Your task to perform on an android device: Search for Mexican restaurants on Maps Image 0: 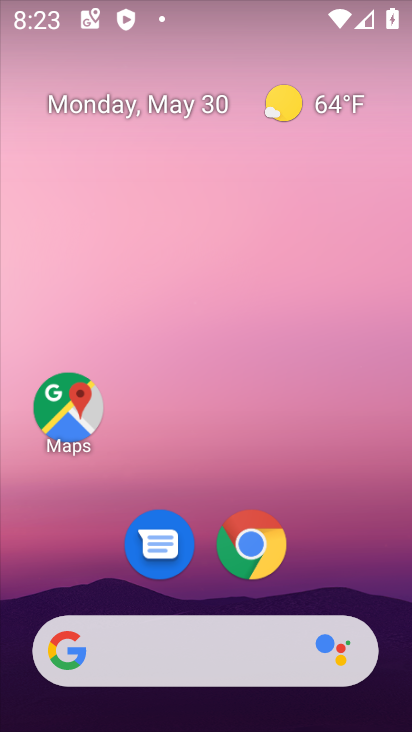
Step 0: click (61, 399)
Your task to perform on an android device: Search for Mexican restaurants on Maps Image 1: 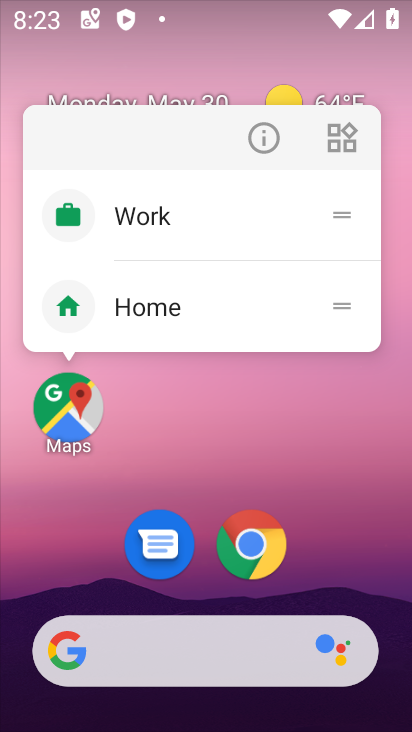
Step 1: click (70, 418)
Your task to perform on an android device: Search for Mexican restaurants on Maps Image 2: 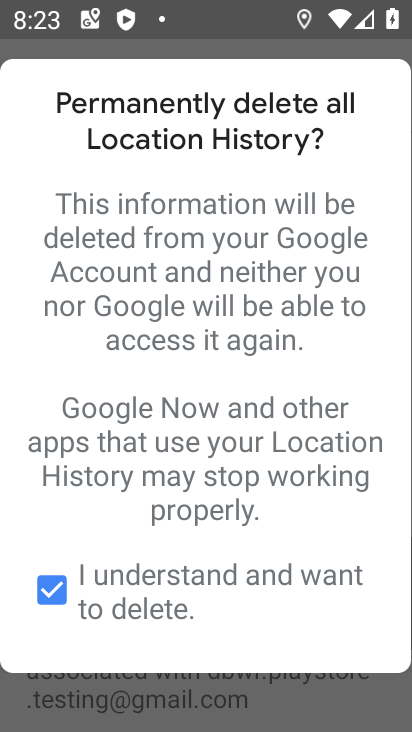
Step 2: press back button
Your task to perform on an android device: Search for Mexican restaurants on Maps Image 3: 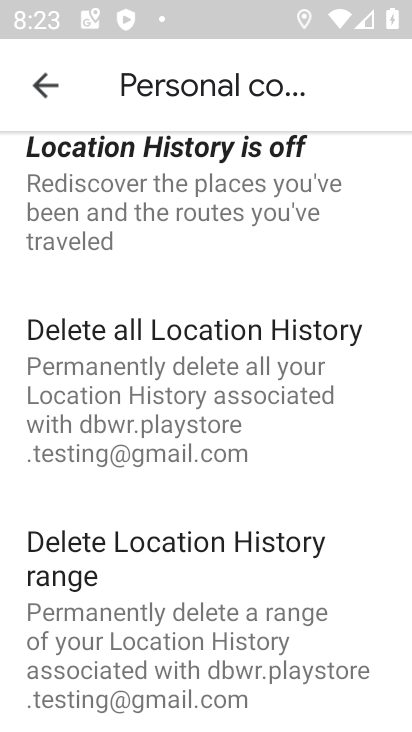
Step 3: press back button
Your task to perform on an android device: Search for Mexican restaurants on Maps Image 4: 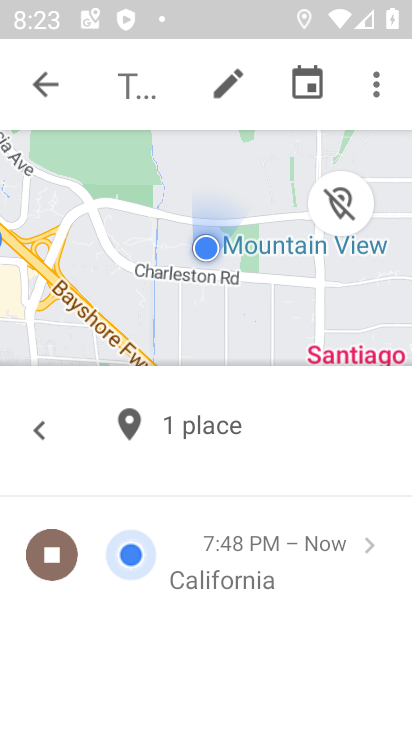
Step 4: click (38, 93)
Your task to perform on an android device: Search for Mexican restaurants on Maps Image 5: 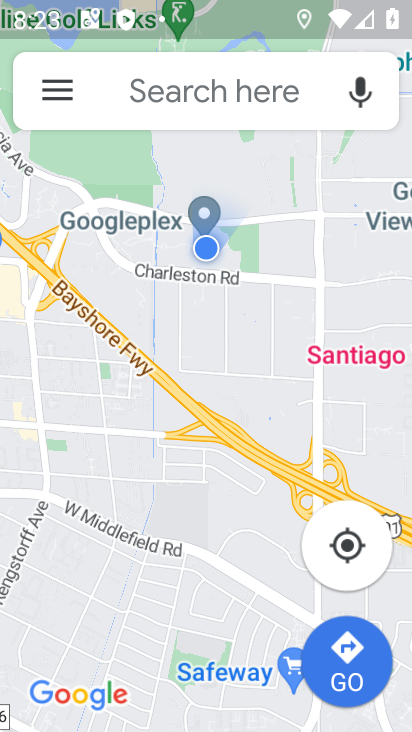
Step 5: click (155, 96)
Your task to perform on an android device: Search for Mexican restaurants on Maps Image 6: 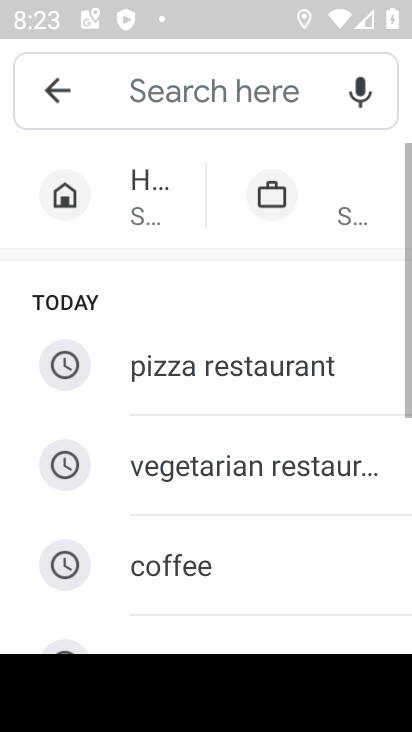
Step 6: drag from (280, 507) to (217, 70)
Your task to perform on an android device: Search for Mexican restaurants on Maps Image 7: 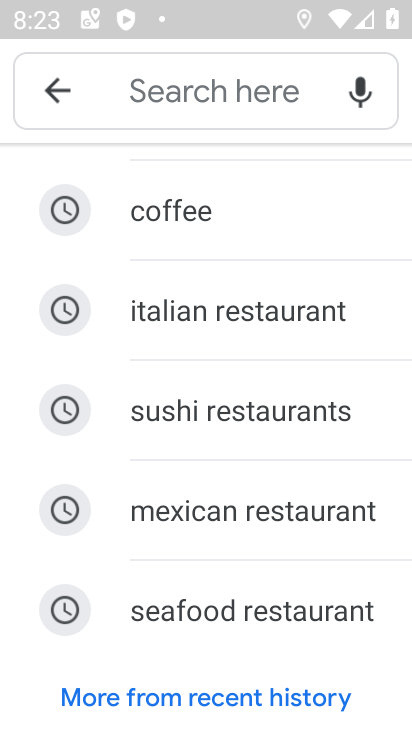
Step 7: click (263, 525)
Your task to perform on an android device: Search for Mexican restaurants on Maps Image 8: 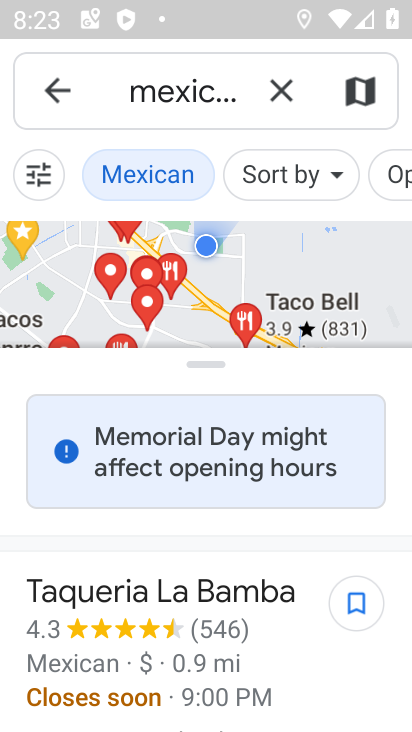
Step 8: task complete